Your task to perform on an android device: set an alarm Image 0: 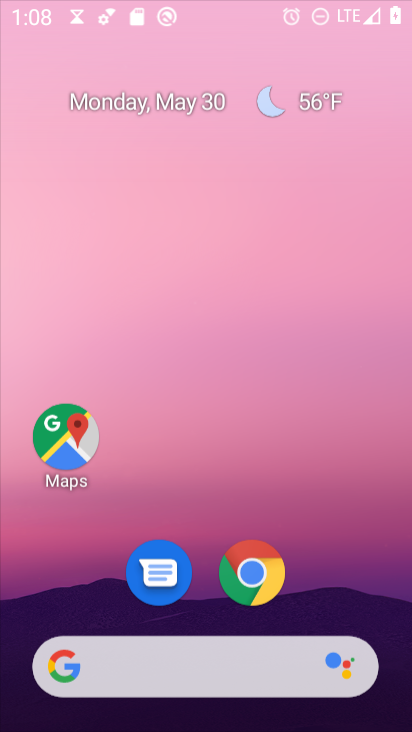
Step 0: drag from (325, 381) to (363, 39)
Your task to perform on an android device: set an alarm Image 1: 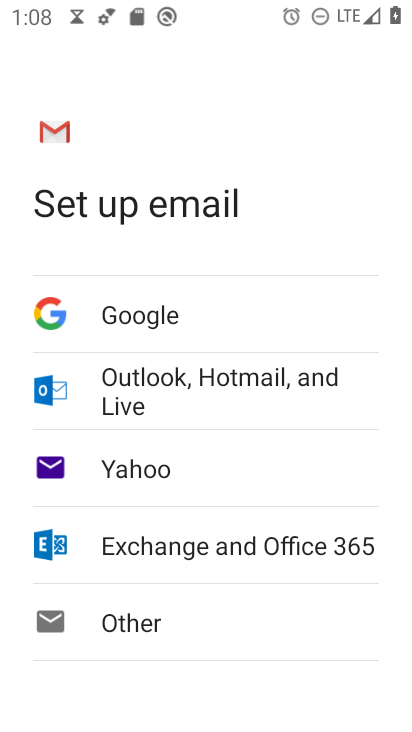
Step 1: press home button
Your task to perform on an android device: set an alarm Image 2: 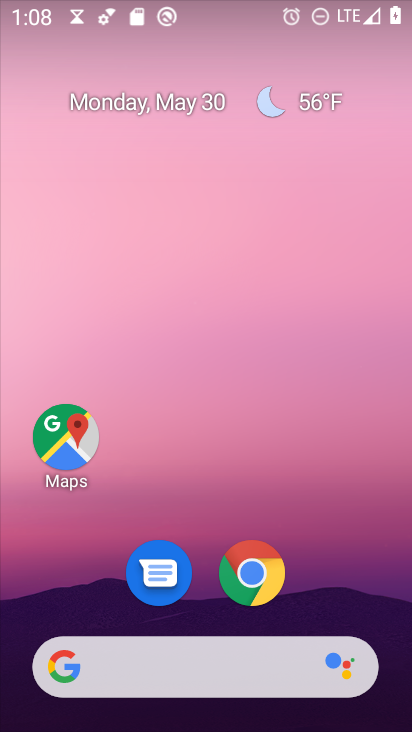
Step 2: drag from (129, 489) to (158, 1)
Your task to perform on an android device: set an alarm Image 3: 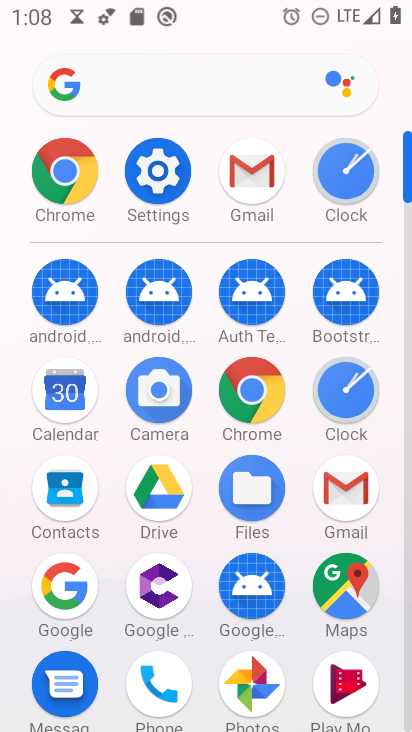
Step 3: click (158, 182)
Your task to perform on an android device: set an alarm Image 4: 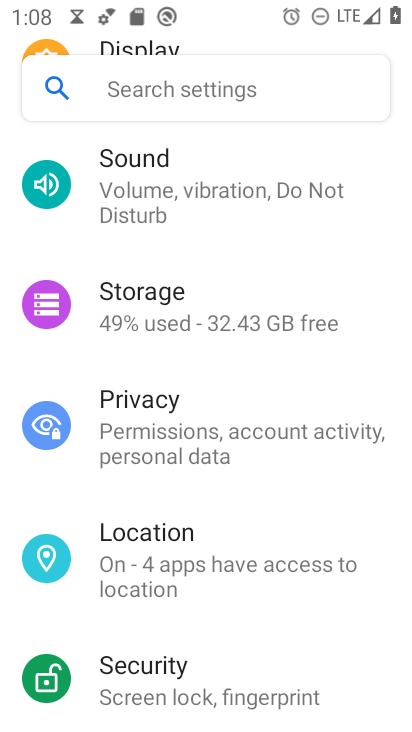
Step 4: press home button
Your task to perform on an android device: set an alarm Image 5: 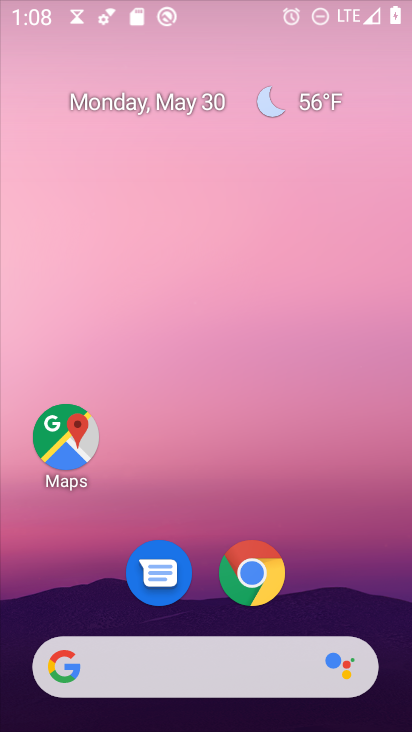
Step 5: drag from (253, 684) to (393, 9)
Your task to perform on an android device: set an alarm Image 6: 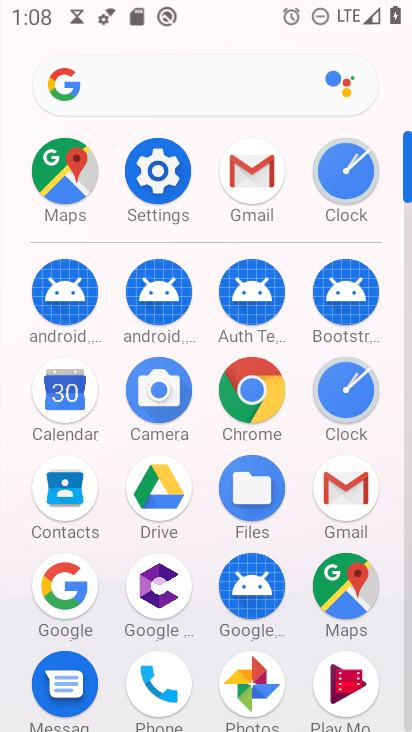
Step 6: click (370, 403)
Your task to perform on an android device: set an alarm Image 7: 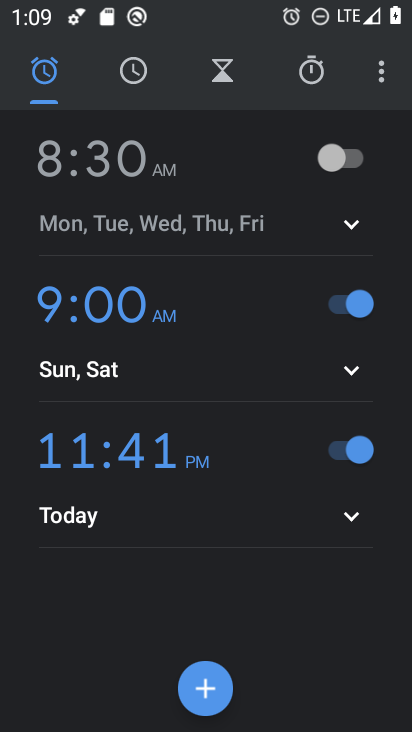
Step 7: click (352, 155)
Your task to perform on an android device: set an alarm Image 8: 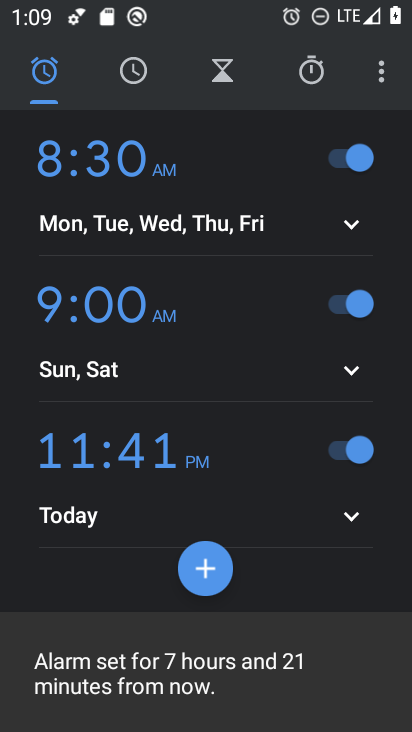
Step 8: task complete